Your task to perform on an android device: Open Maps and search for coffee Image 0: 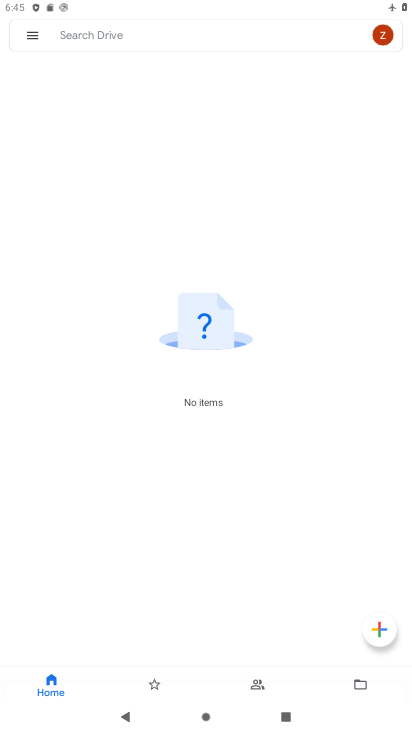
Step 0: press home button
Your task to perform on an android device: Open Maps and search for coffee Image 1: 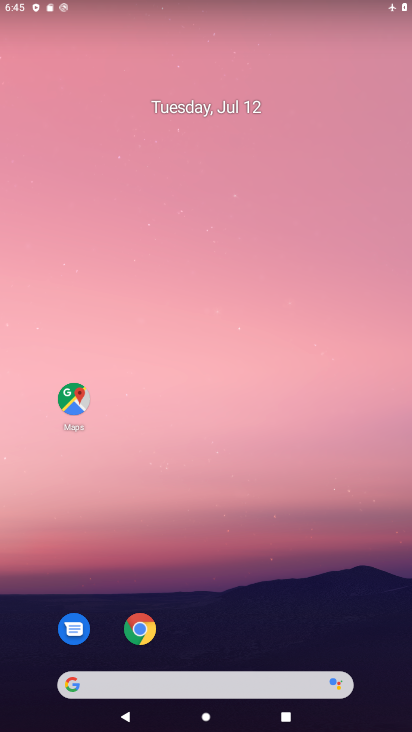
Step 1: click (75, 397)
Your task to perform on an android device: Open Maps and search for coffee Image 2: 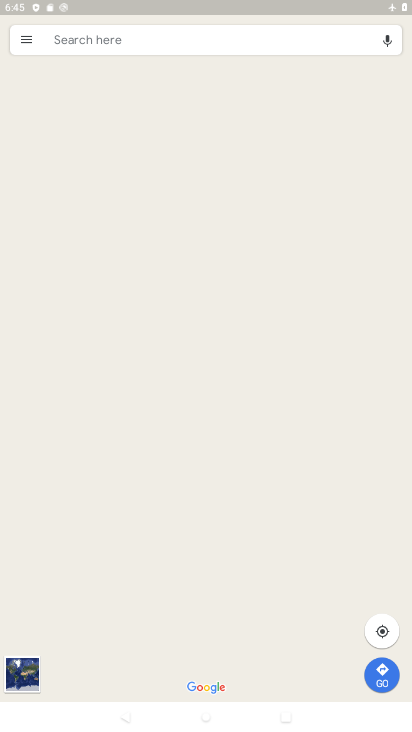
Step 2: click (155, 42)
Your task to perform on an android device: Open Maps and search for coffee Image 3: 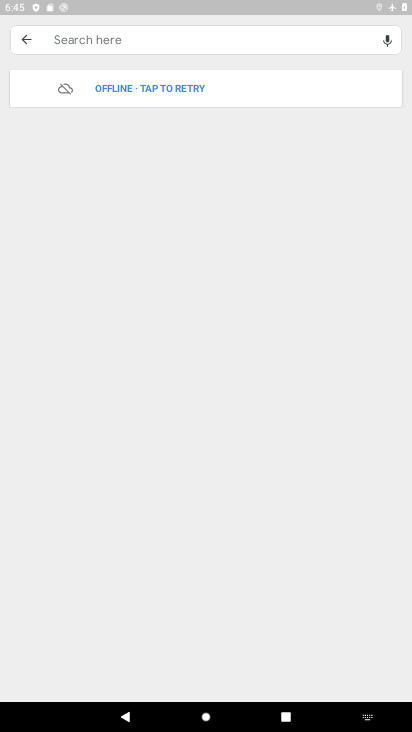
Step 3: type "coffee"
Your task to perform on an android device: Open Maps and search for coffee Image 4: 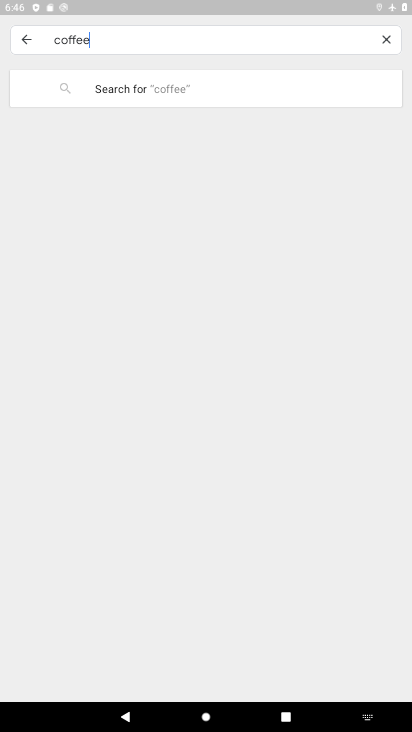
Step 4: task complete